Your task to perform on an android device: Search for Italian restaurants on Maps Image 0: 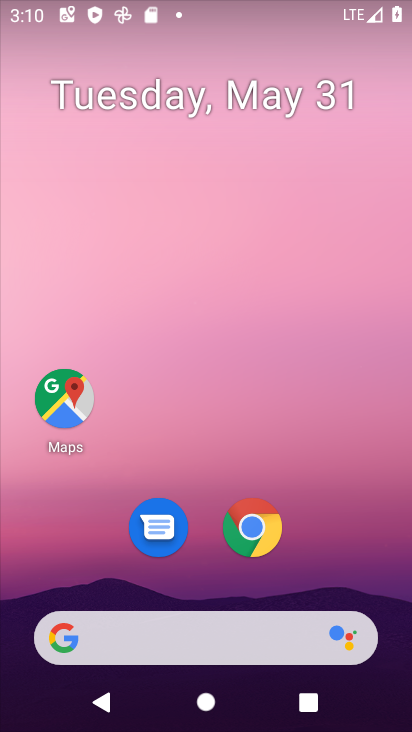
Step 0: click (41, 405)
Your task to perform on an android device: Search for Italian restaurants on Maps Image 1: 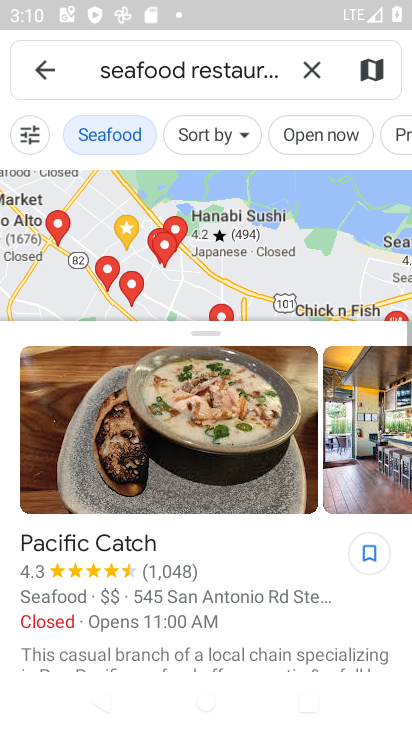
Step 1: click (308, 67)
Your task to perform on an android device: Search for Italian restaurants on Maps Image 2: 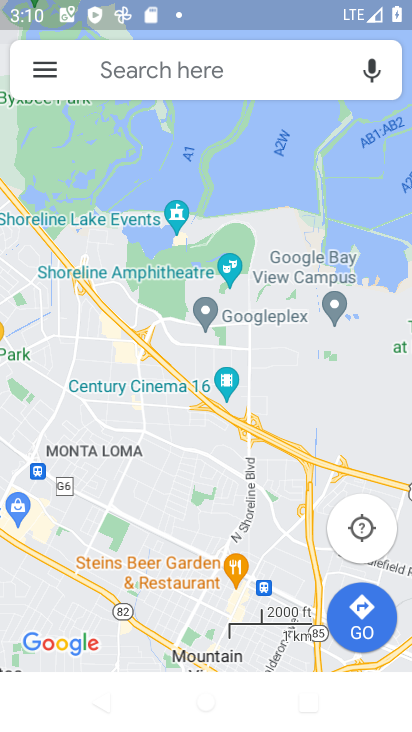
Step 2: click (191, 73)
Your task to perform on an android device: Search for Italian restaurants on Maps Image 3: 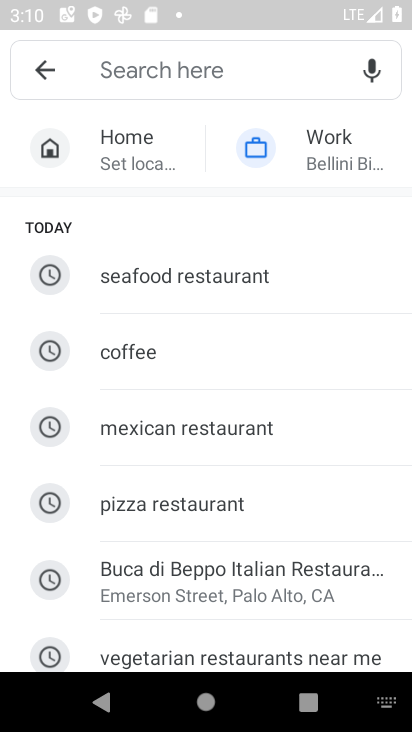
Step 3: drag from (267, 598) to (288, 254)
Your task to perform on an android device: Search for Italian restaurants on Maps Image 4: 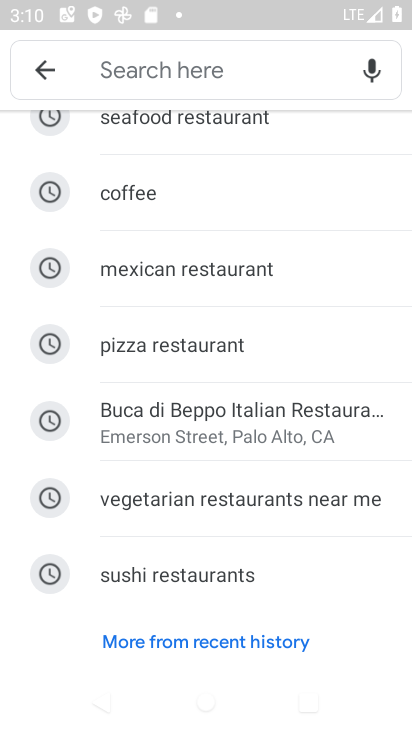
Step 4: drag from (289, 258) to (260, 534)
Your task to perform on an android device: Search for Italian restaurants on Maps Image 5: 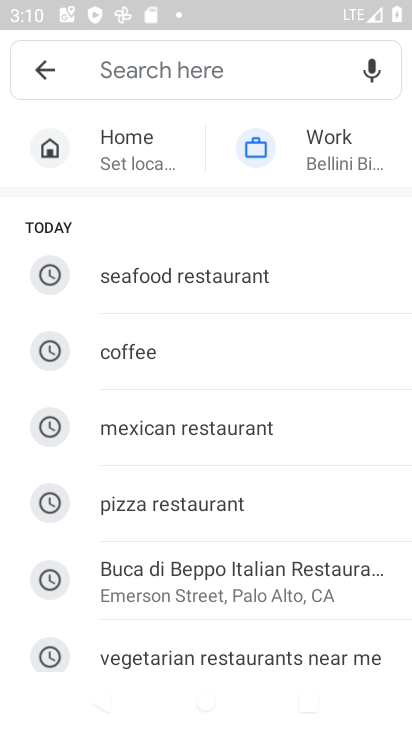
Step 5: drag from (191, 658) to (170, 270)
Your task to perform on an android device: Search for Italian restaurants on Maps Image 6: 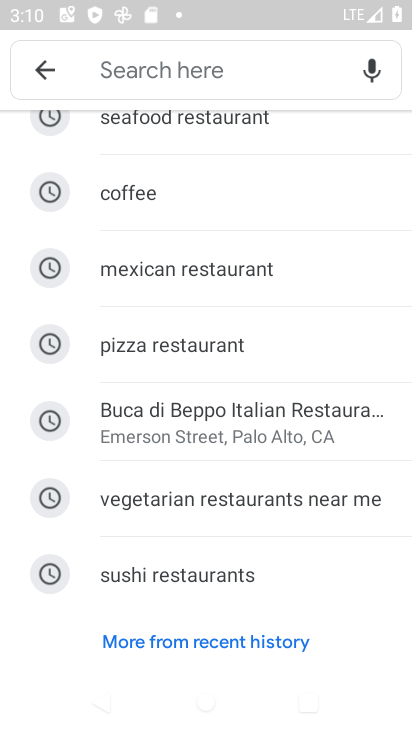
Step 6: click (122, 624)
Your task to perform on an android device: Search for Italian restaurants on Maps Image 7: 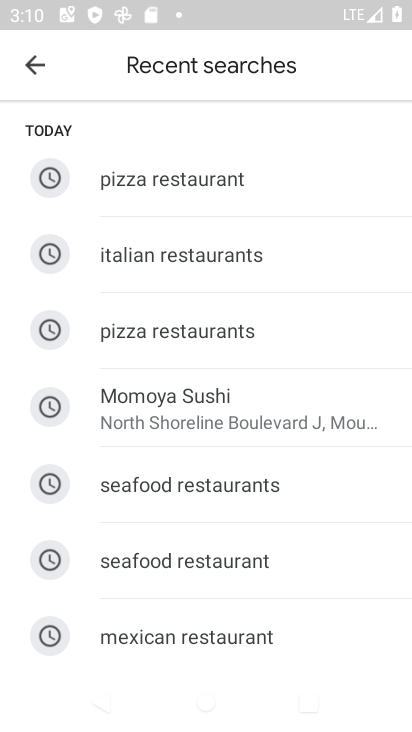
Step 7: click (167, 261)
Your task to perform on an android device: Search for Italian restaurants on Maps Image 8: 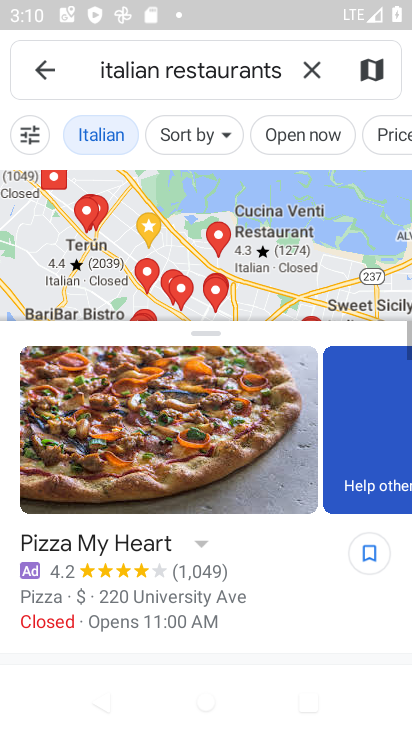
Step 8: task complete